Your task to perform on an android device: set an alarm Image 0: 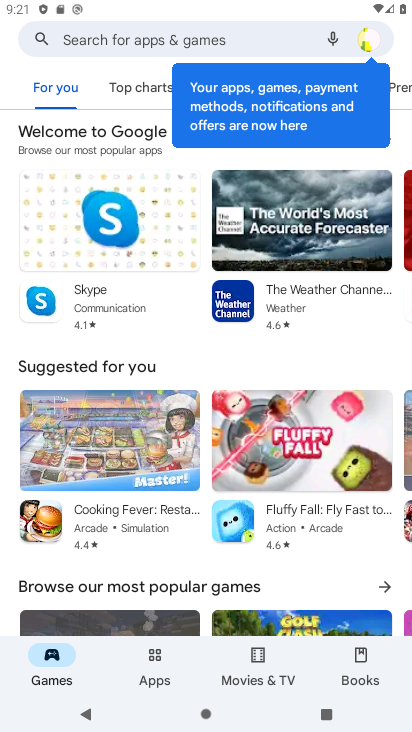
Step 0: press home button
Your task to perform on an android device: set an alarm Image 1: 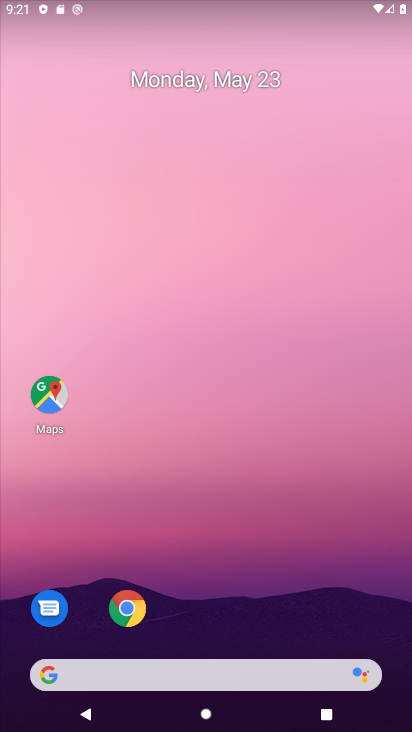
Step 1: drag from (230, 622) to (196, 25)
Your task to perform on an android device: set an alarm Image 2: 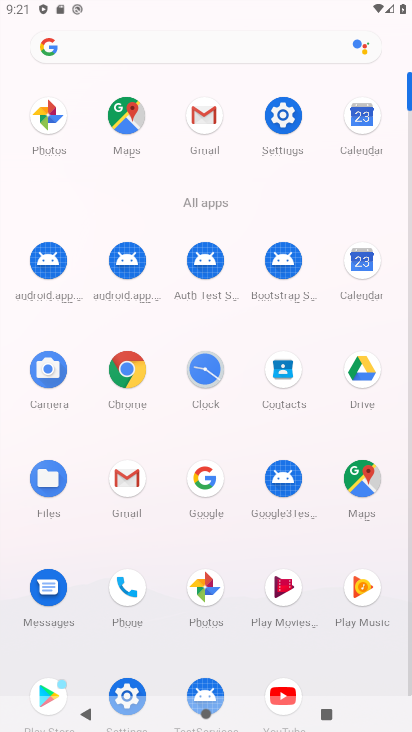
Step 2: click (204, 372)
Your task to perform on an android device: set an alarm Image 3: 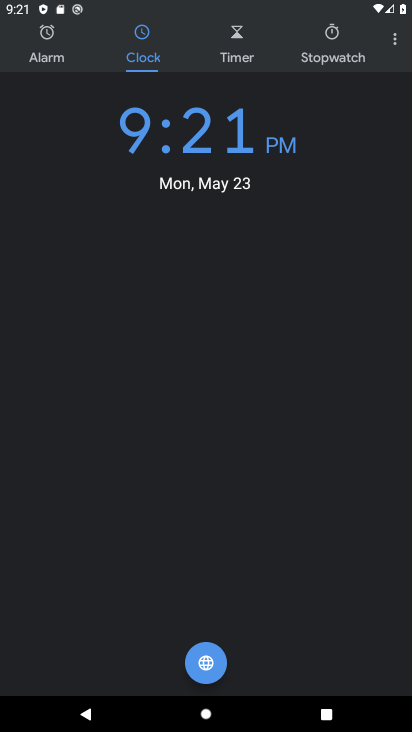
Step 3: click (50, 44)
Your task to perform on an android device: set an alarm Image 4: 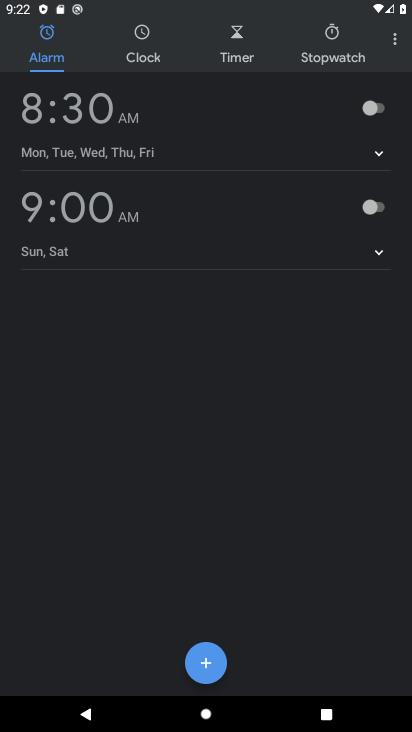
Step 4: click (211, 658)
Your task to perform on an android device: set an alarm Image 5: 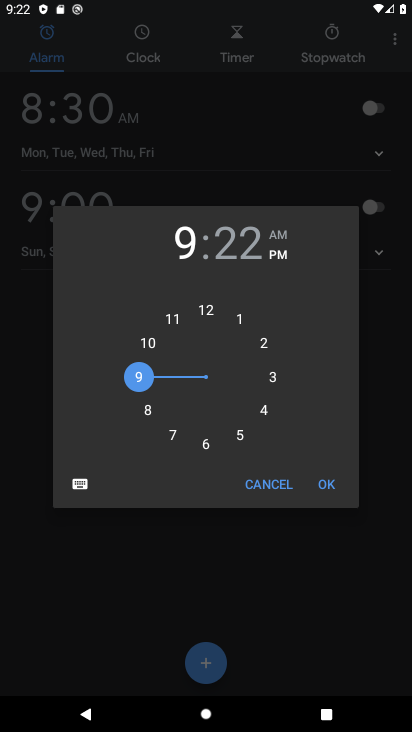
Step 5: click (329, 495)
Your task to perform on an android device: set an alarm Image 6: 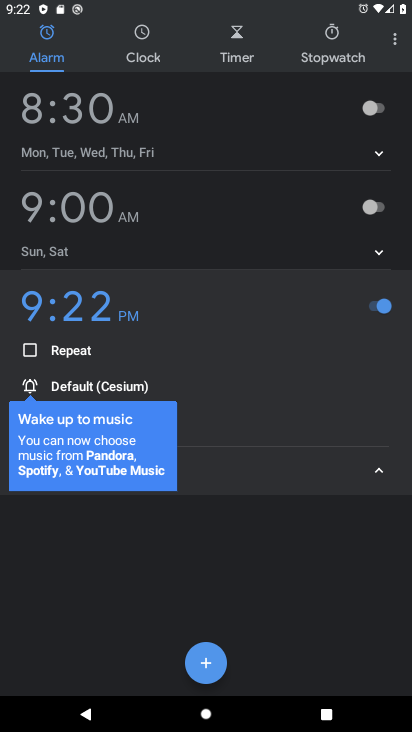
Step 6: task complete